Your task to perform on an android device: Show the shopping cart on target.com. Add "bose soundlink mini" to the cart on target.com, then select checkout. Image 0: 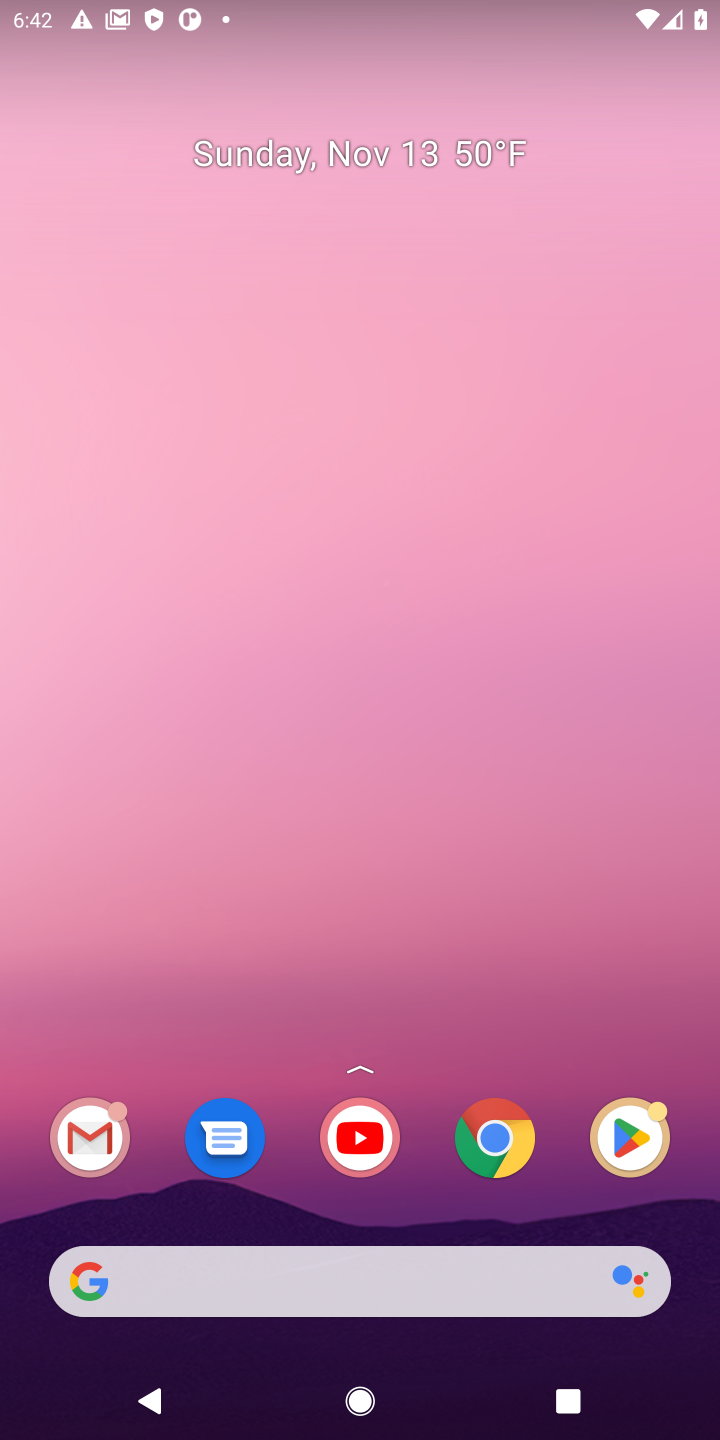
Step 0: drag from (155, 366) to (181, 75)
Your task to perform on an android device: Show the shopping cart on target.com. Add "bose soundlink mini" to the cart on target.com, then select checkout. Image 1: 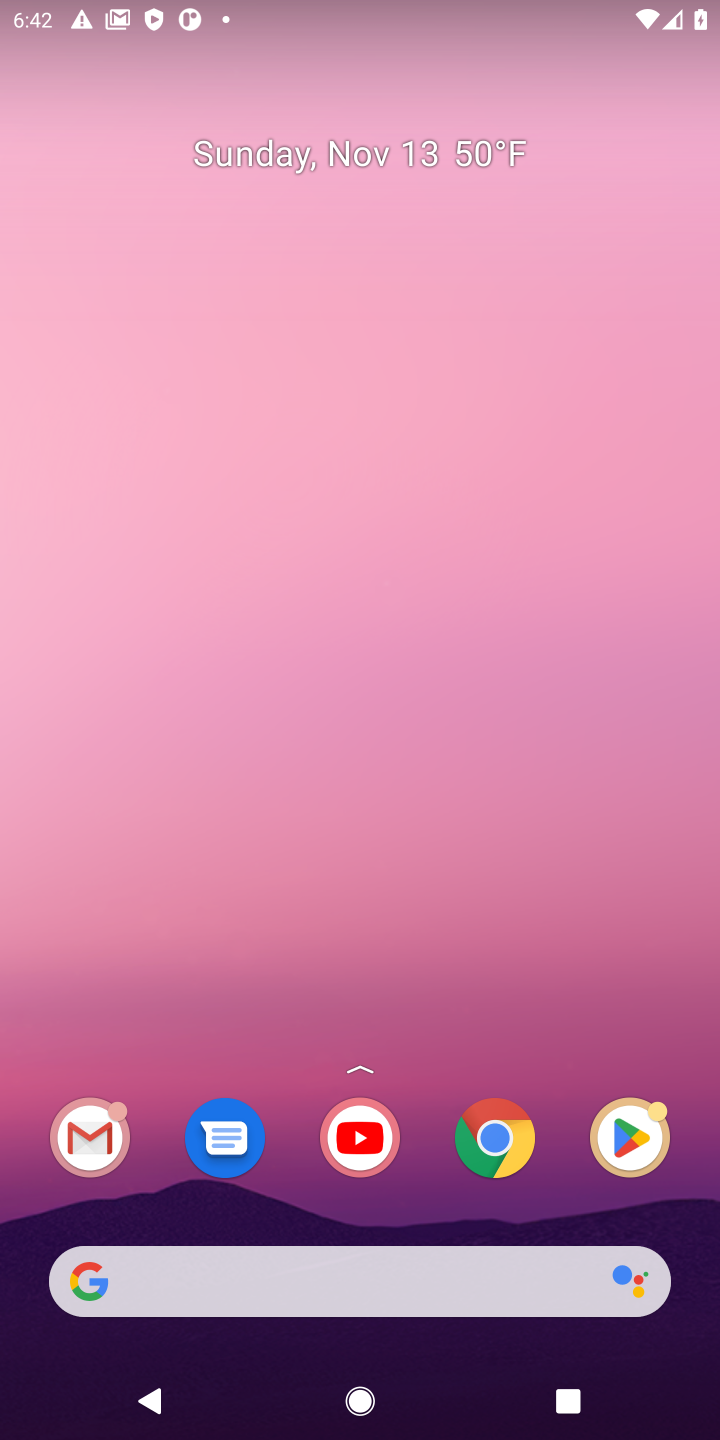
Step 1: drag from (372, 1205) to (153, 252)
Your task to perform on an android device: Show the shopping cart on target.com. Add "bose soundlink mini" to the cart on target.com, then select checkout. Image 2: 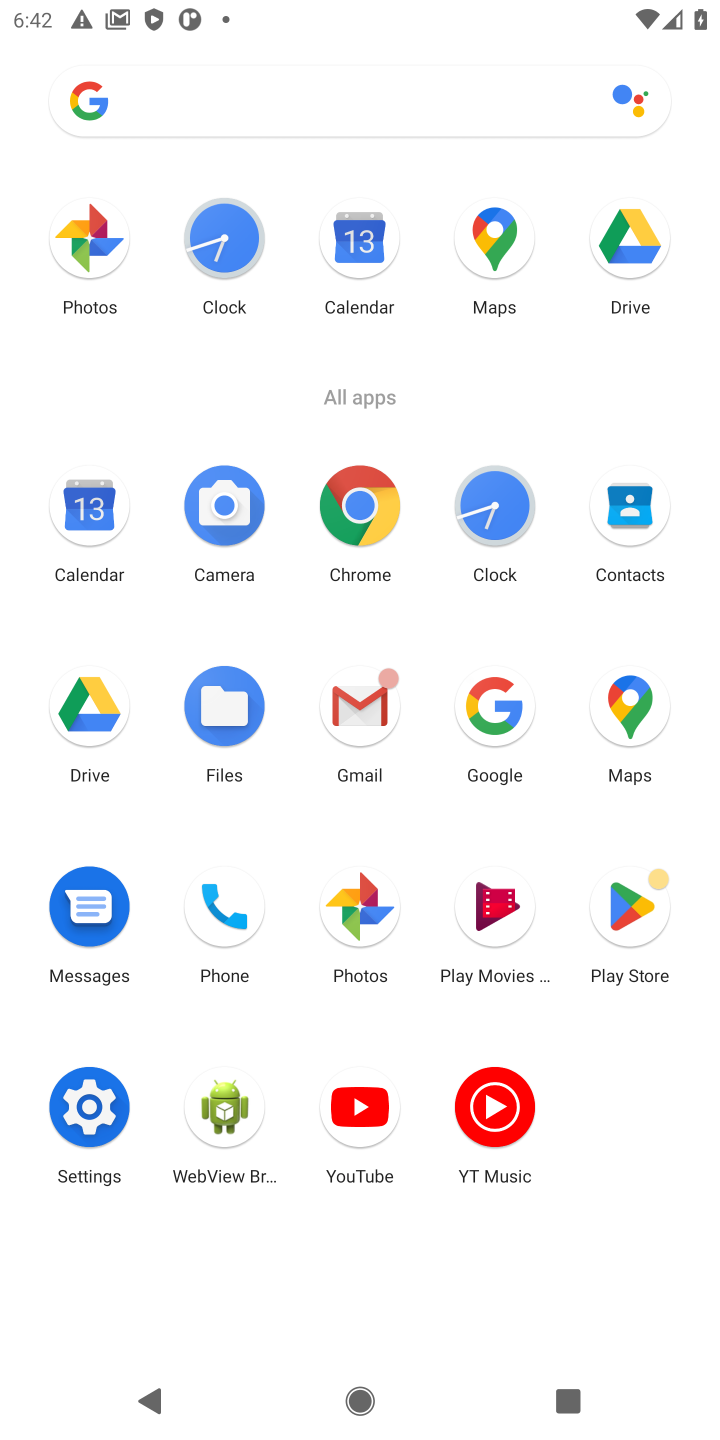
Step 2: click (378, 520)
Your task to perform on an android device: Show the shopping cart on target.com. Add "bose soundlink mini" to the cart on target.com, then select checkout. Image 3: 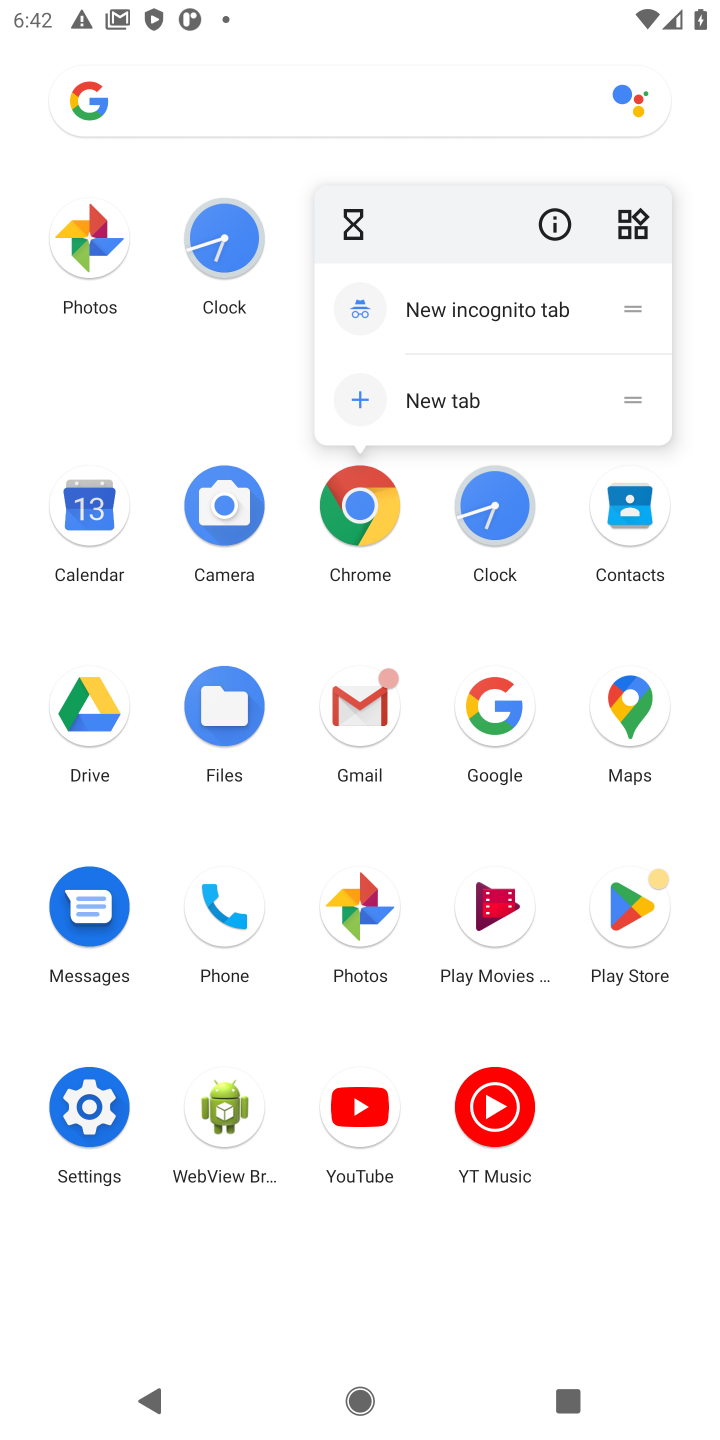
Step 3: click (378, 519)
Your task to perform on an android device: Show the shopping cart on target.com. Add "bose soundlink mini" to the cart on target.com, then select checkout. Image 4: 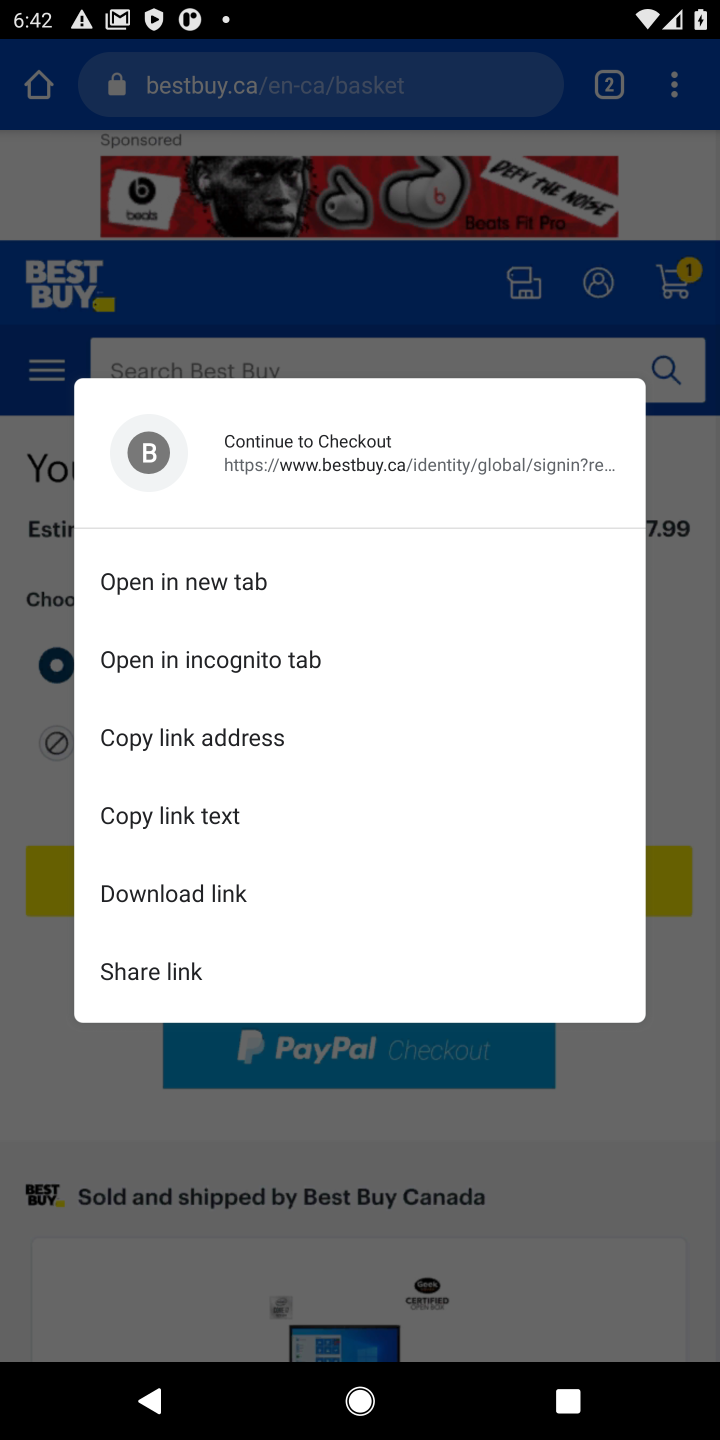
Step 4: click (165, 298)
Your task to perform on an android device: Show the shopping cart on target.com. Add "bose soundlink mini" to the cart on target.com, then select checkout. Image 5: 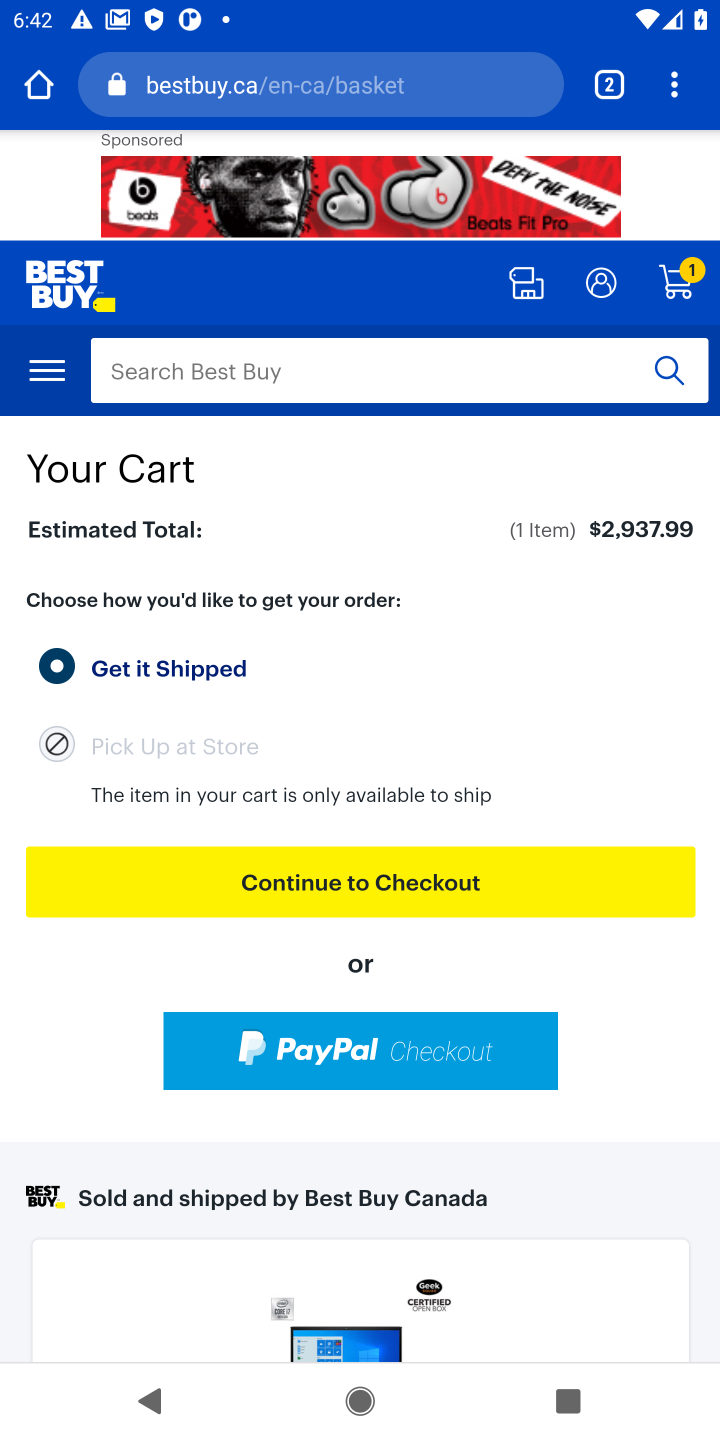
Step 5: click (238, 99)
Your task to perform on an android device: Show the shopping cart on target.com. Add "bose soundlink mini" to the cart on target.com, then select checkout. Image 6: 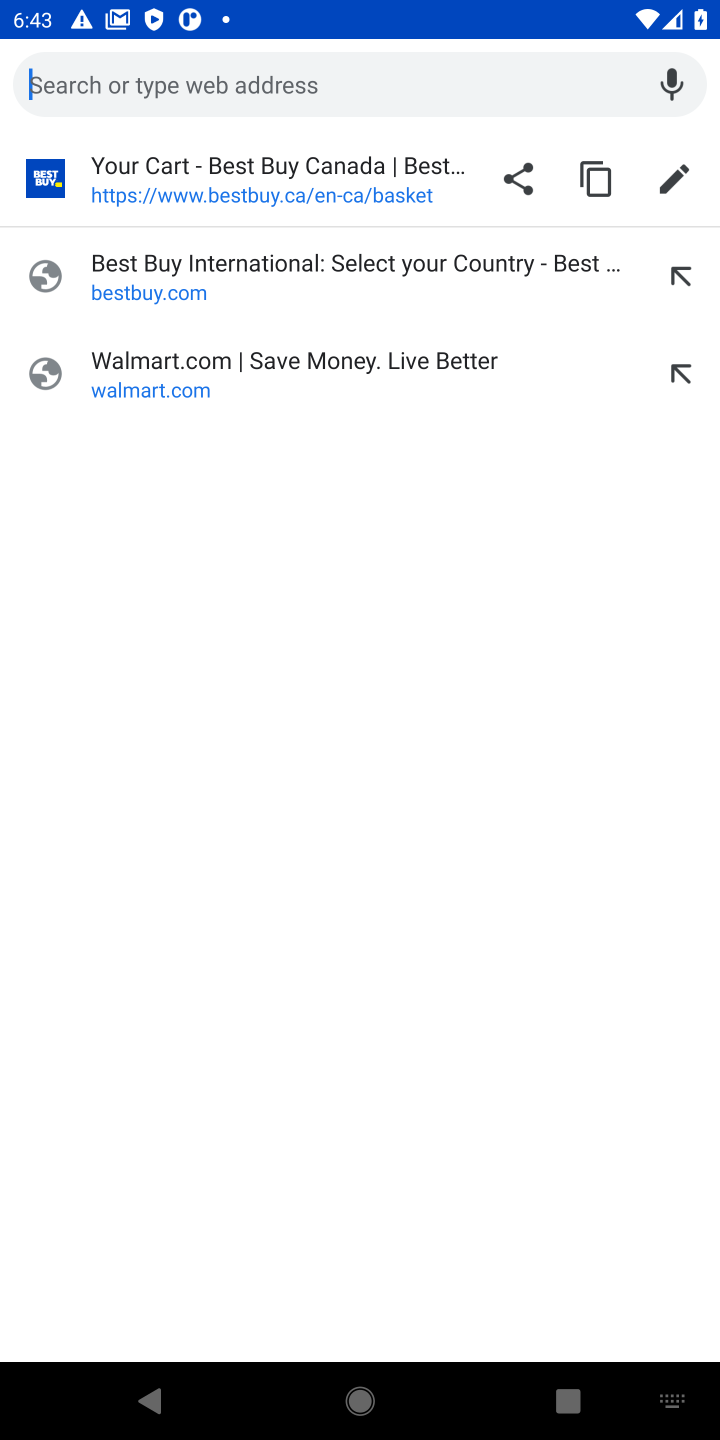
Step 6: type "target.com."
Your task to perform on an android device: Show the shopping cart on target.com. Add "bose soundlink mini" to the cart on target.com, then select checkout. Image 7: 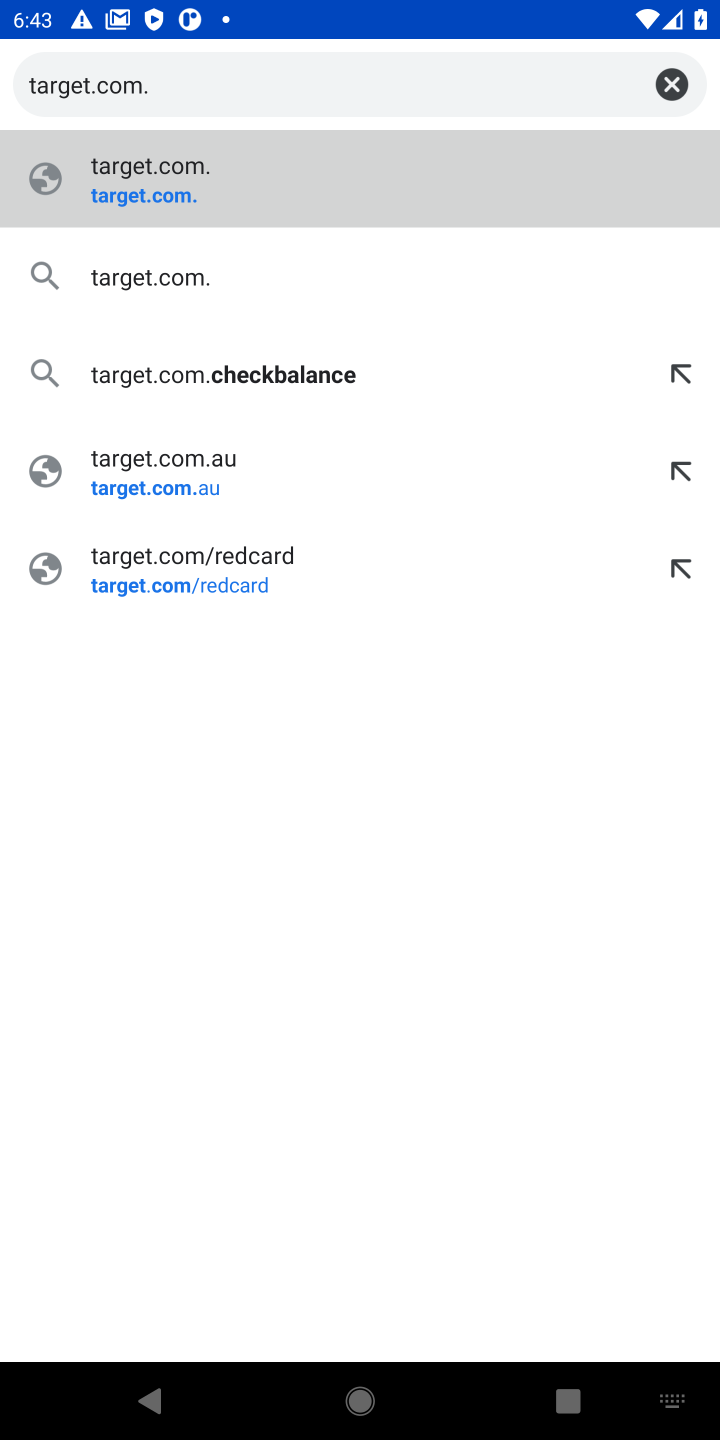
Step 7: press enter
Your task to perform on an android device: Show the shopping cart on target.com. Add "bose soundlink mini" to the cart on target.com, then select checkout. Image 8: 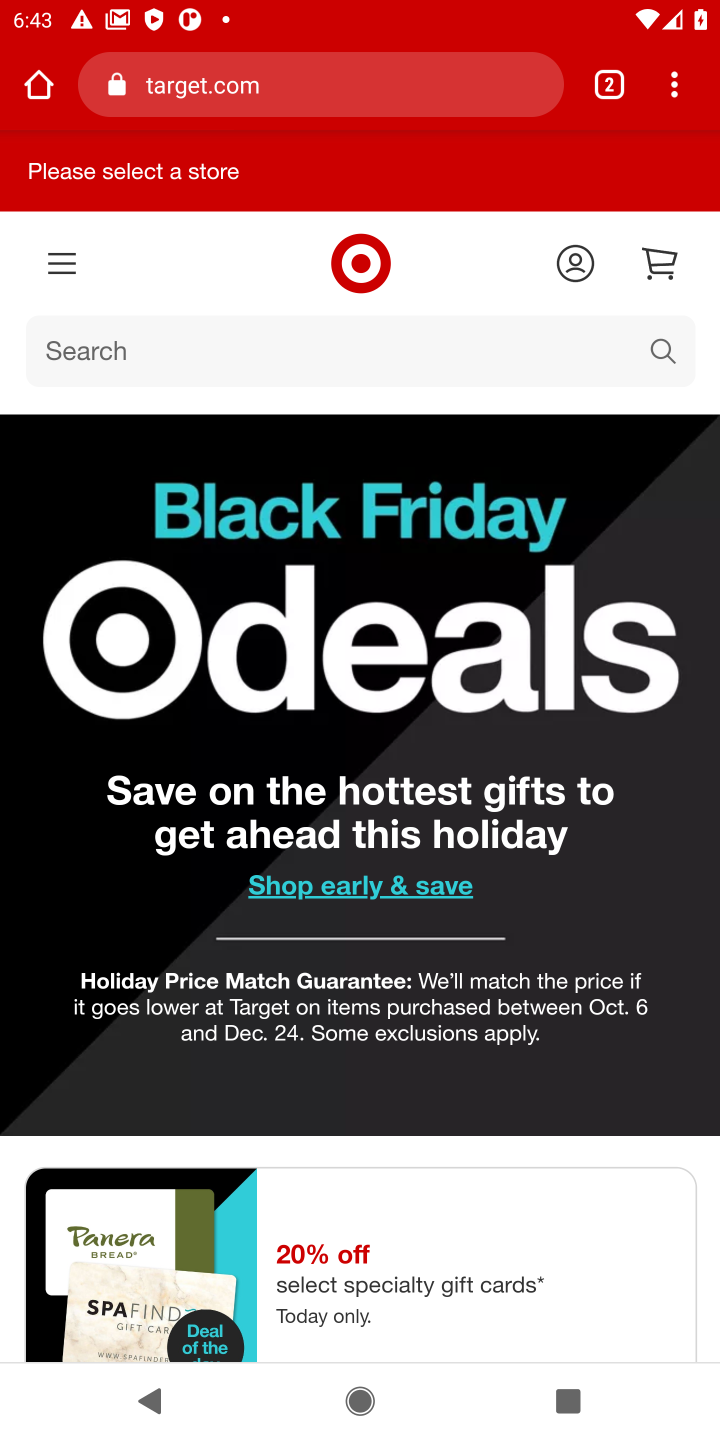
Step 8: click (115, 348)
Your task to perform on an android device: Show the shopping cart on target.com. Add "bose soundlink mini" to the cart on target.com, then select checkout. Image 9: 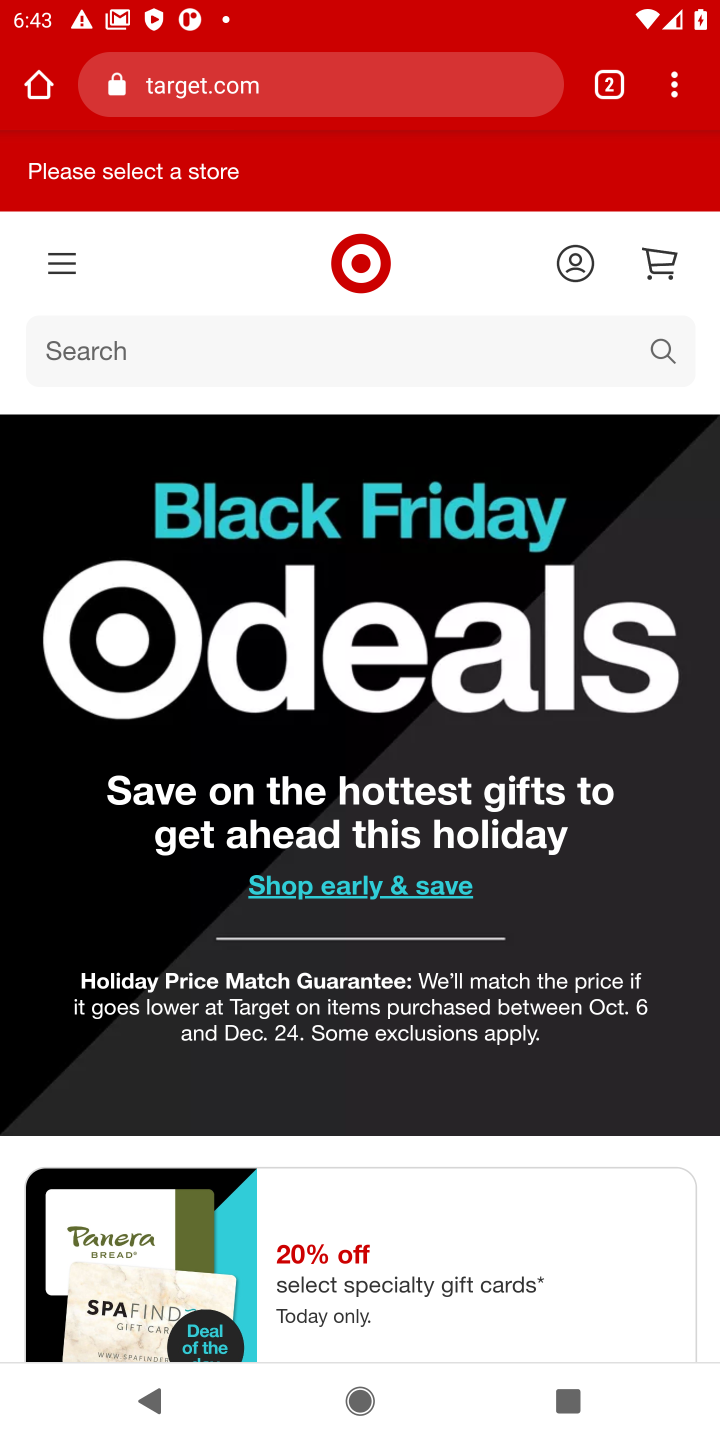
Step 9: click (166, 357)
Your task to perform on an android device: Show the shopping cart on target.com. Add "bose soundlink mini" to the cart on target.com, then select checkout. Image 10: 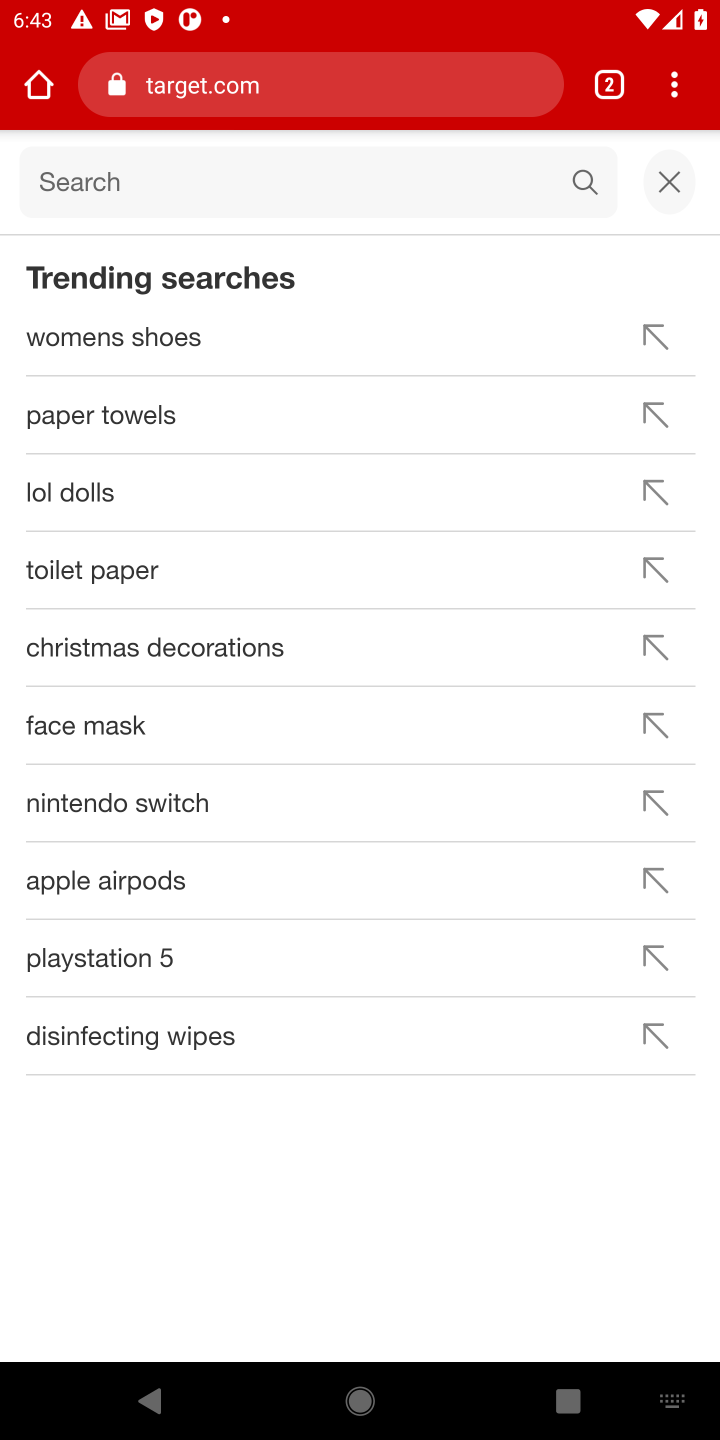
Step 10: type "bose soundlink mini"
Your task to perform on an android device: Show the shopping cart on target.com. Add "bose soundlink mini" to the cart on target.com, then select checkout. Image 11: 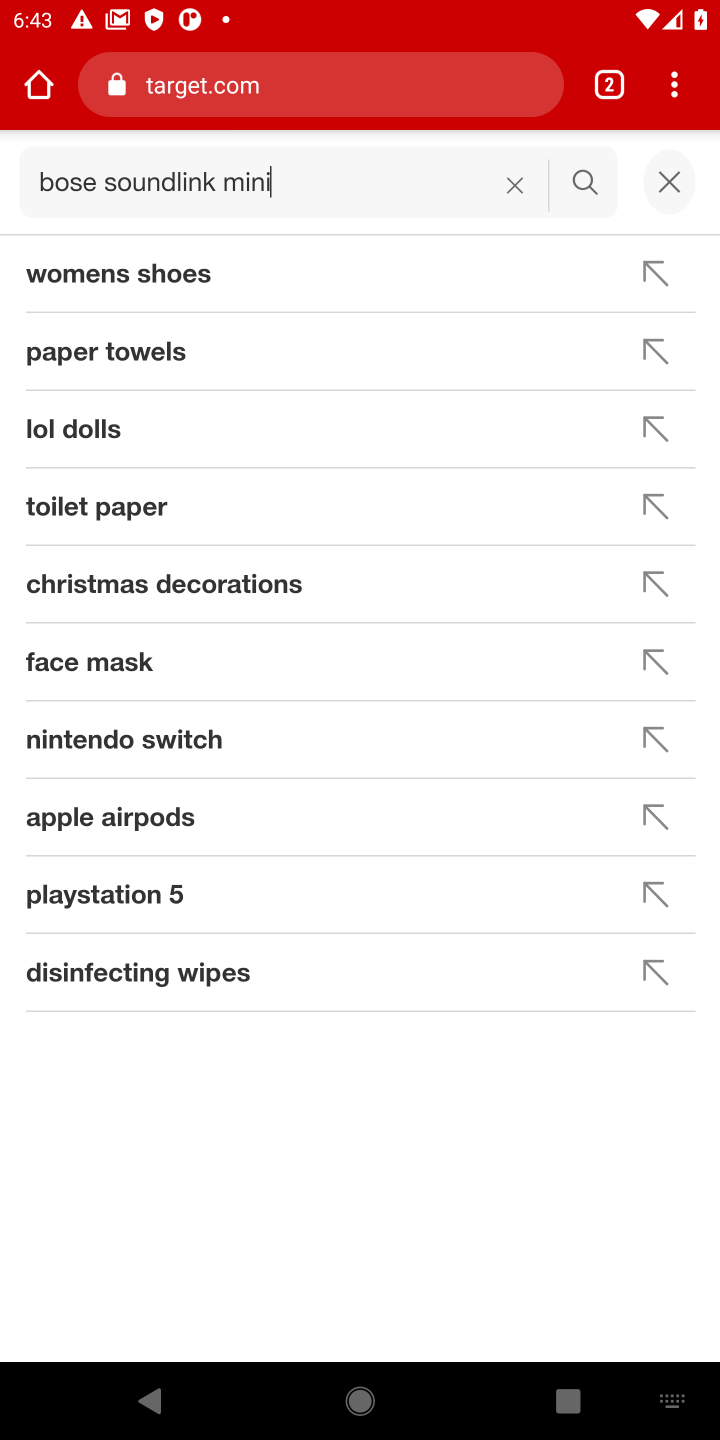
Step 11: press enter
Your task to perform on an android device: Show the shopping cart on target.com. Add "bose soundlink mini" to the cart on target.com, then select checkout. Image 12: 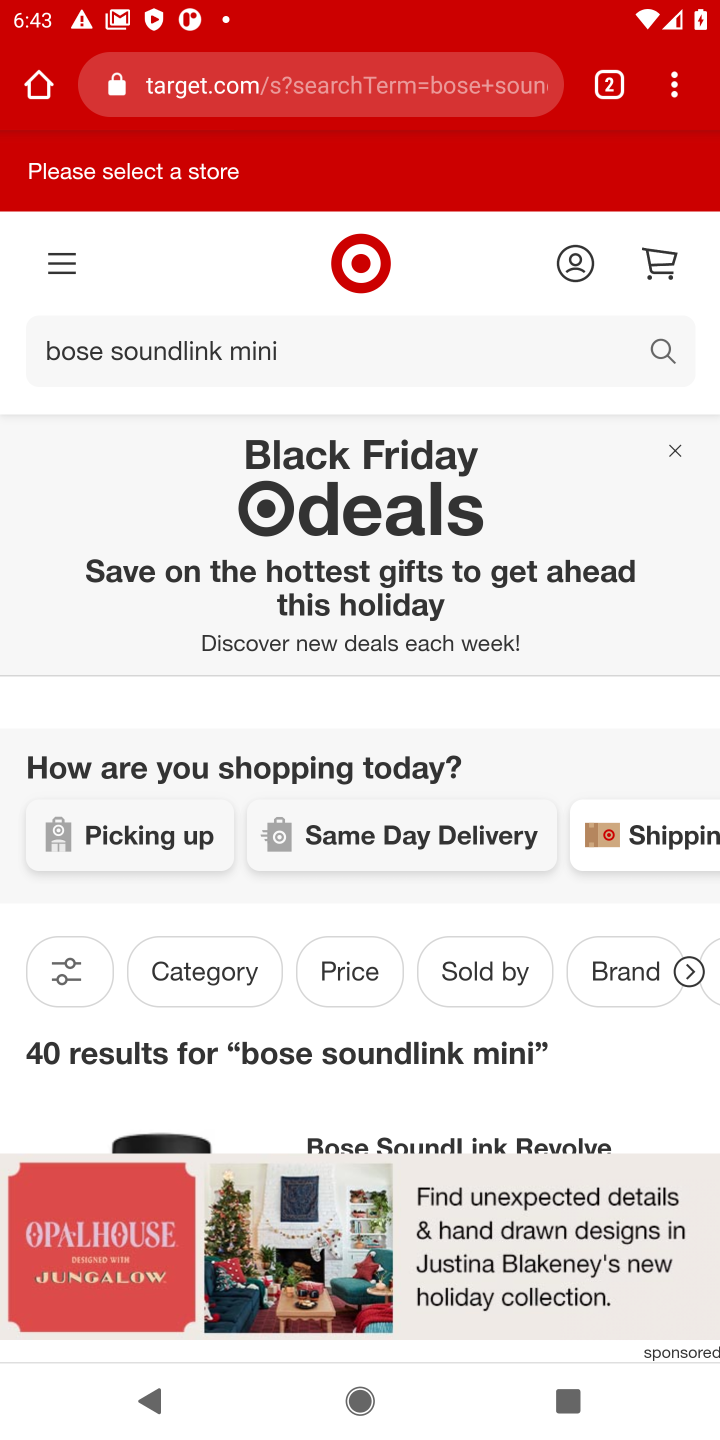
Step 12: drag from (424, 809) to (390, 451)
Your task to perform on an android device: Show the shopping cart on target.com. Add "bose soundlink mini" to the cart on target.com, then select checkout. Image 13: 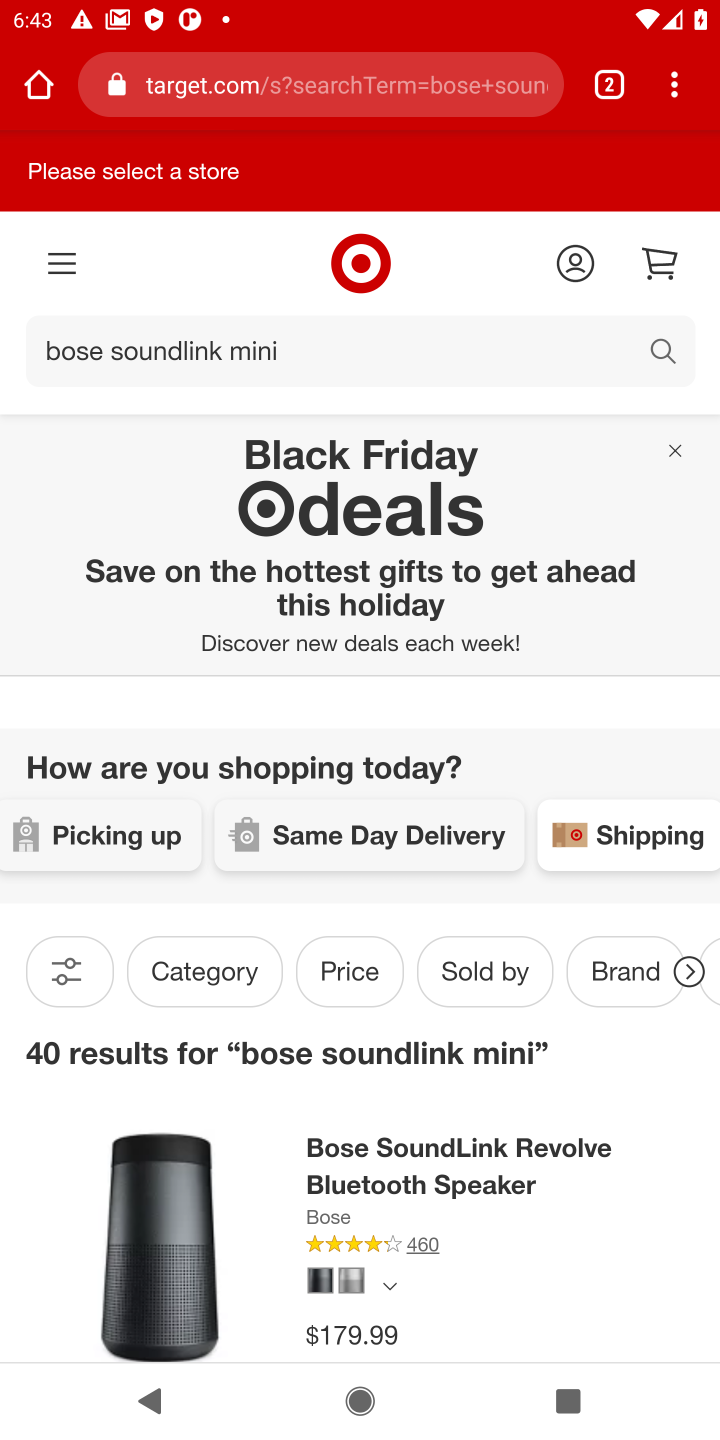
Step 13: drag from (536, 938) to (663, 734)
Your task to perform on an android device: Show the shopping cart on target.com. Add "bose soundlink mini" to the cart on target.com, then select checkout. Image 14: 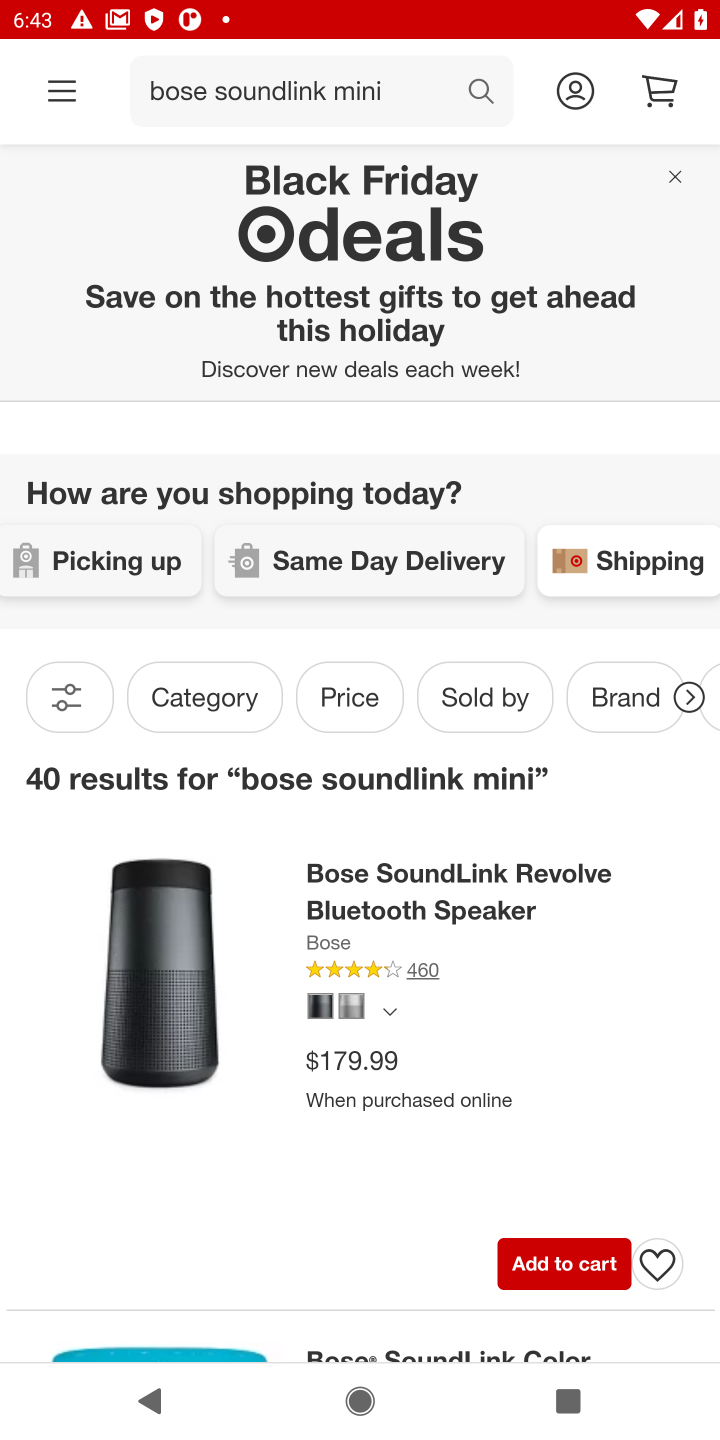
Step 14: drag from (428, 1139) to (430, 628)
Your task to perform on an android device: Show the shopping cart on target.com. Add "bose soundlink mini" to the cart on target.com, then select checkout. Image 15: 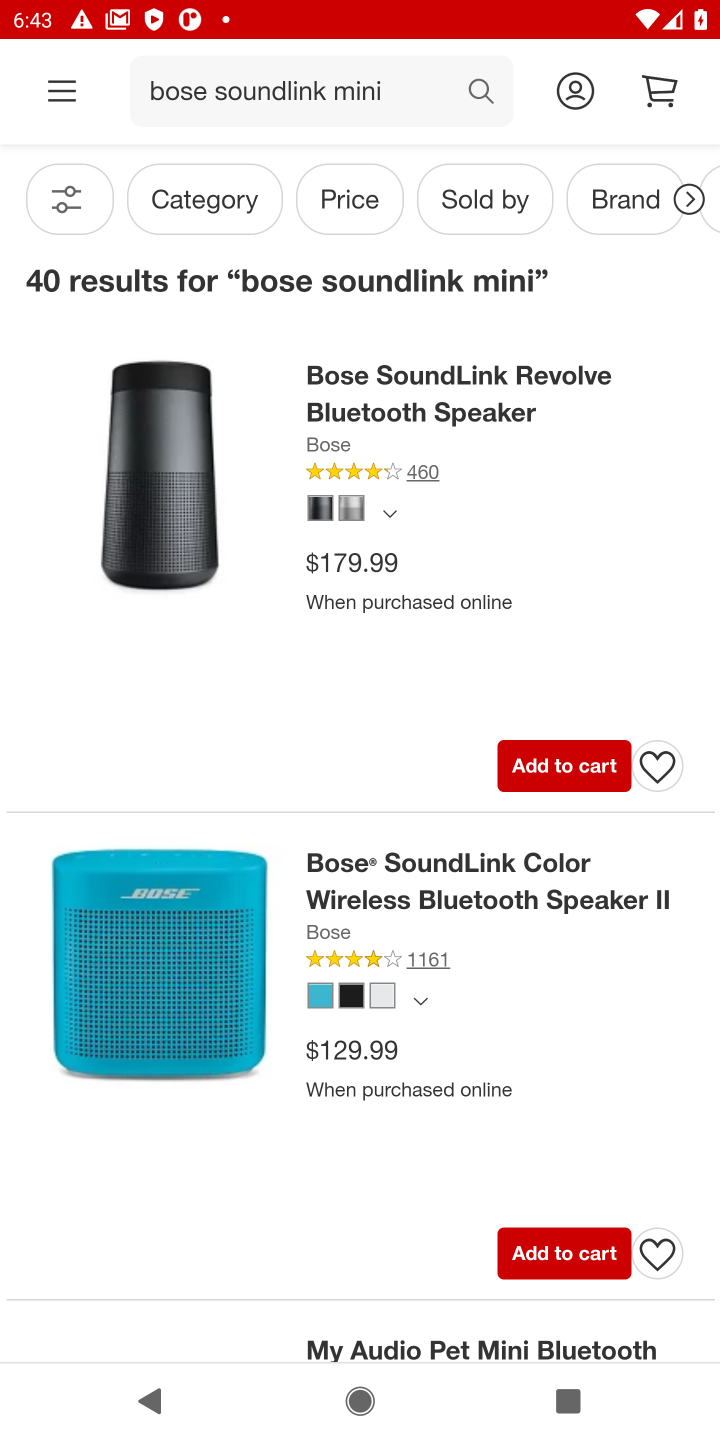
Step 15: click (533, 770)
Your task to perform on an android device: Show the shopping cart on target.com. Add "bose soundlink mini" to the cart on target.com, then select checkout. Image 16: 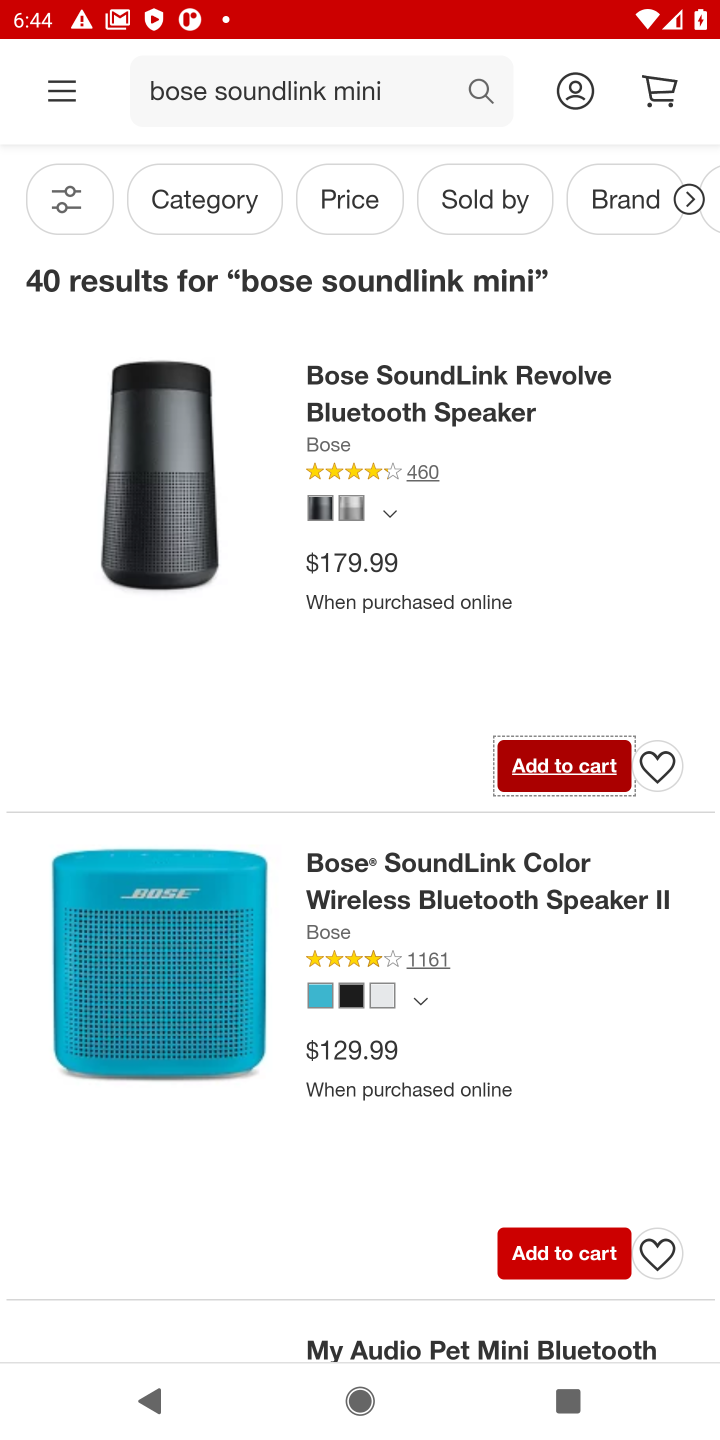
Step 16: click (533, 770)
Your task to perform on an android device: Show the shopping cart on target.com. Add "bose soundlink mini" to the cart on target.com, then select checkout. Image 17: 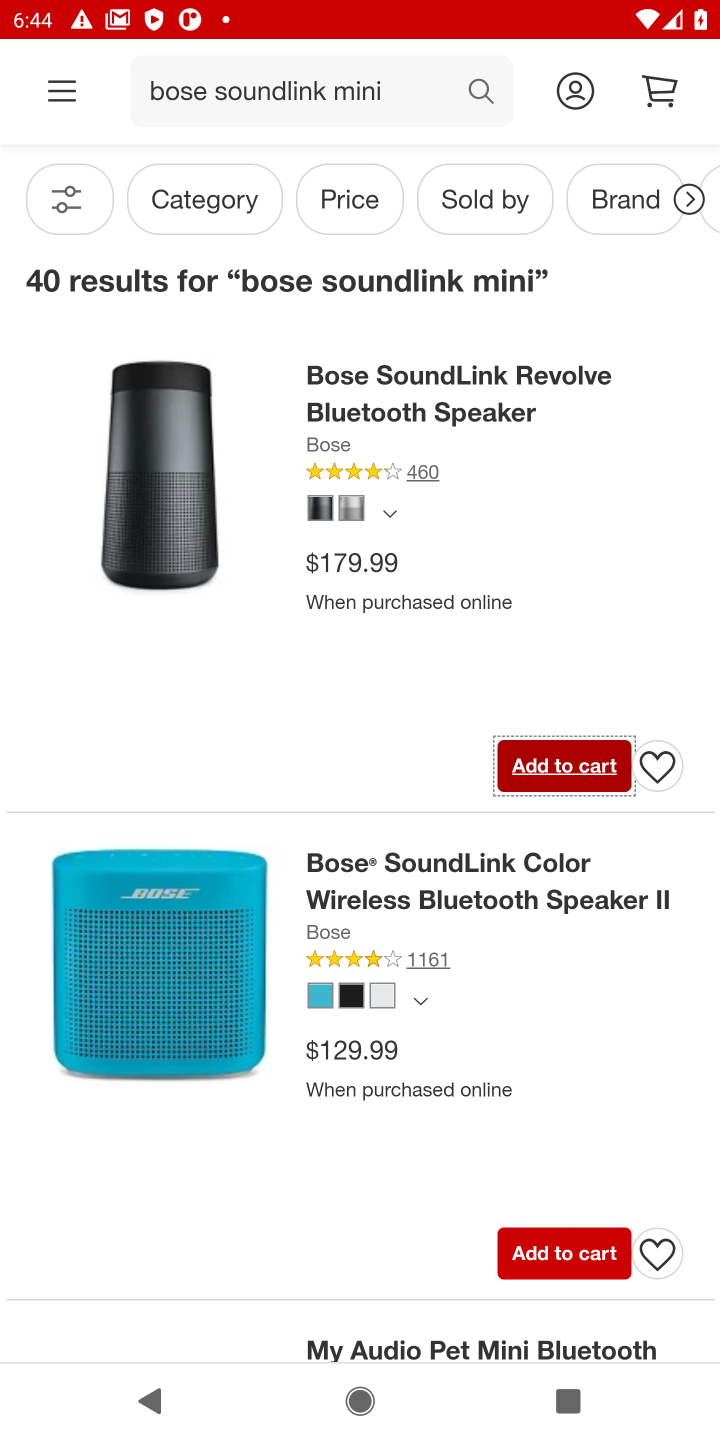
Step 17: click (533, 769)
Your task to perform on an android device: Show the shopping cart on target.com. Add "bose soundlink mini" to the cart on target.com, then select checkout. Image 18: 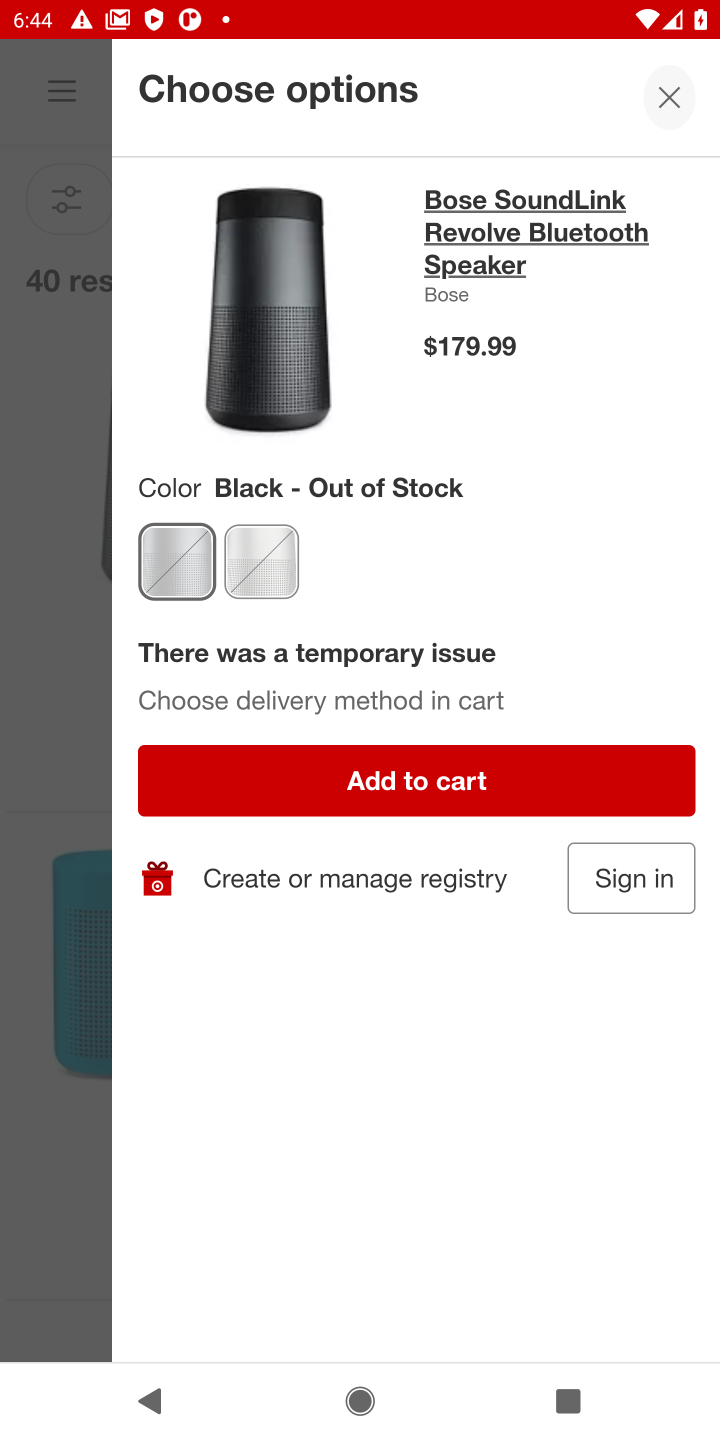
Step 18: click (462, 759)
Your task to perform on an android device: Show the shopping cart on target.com. Add "bose soundlink mini" to the cart on target.com, then select checkout. Image 19: 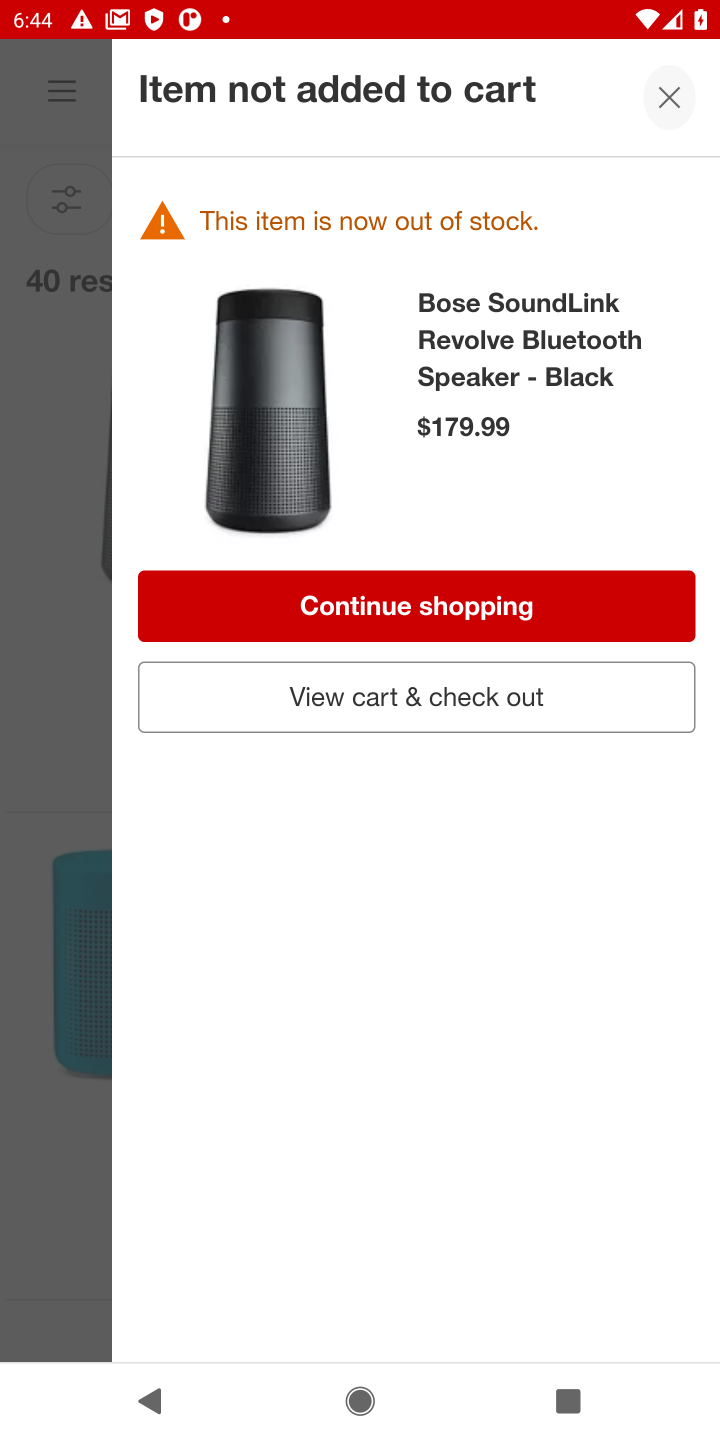
Step 19: click (444, 700)
Your task to perform on an android device: Show the shopping cart on target.com. Add "bose soundlink mini" to the cart on target.com, then select checkout. Image 20: 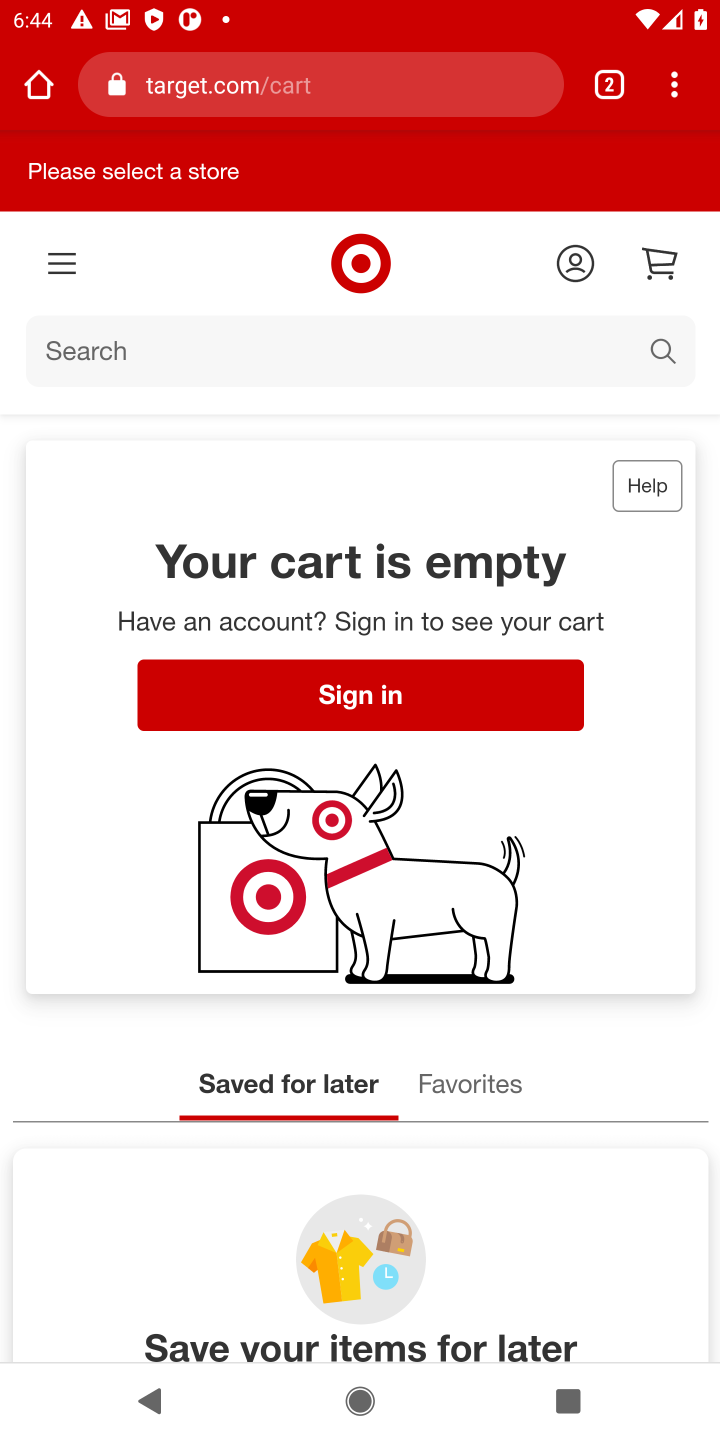
Step 20: task complete